Your task to perform on an android device: Play the new Justin Bieber video on YouTube Image 0: 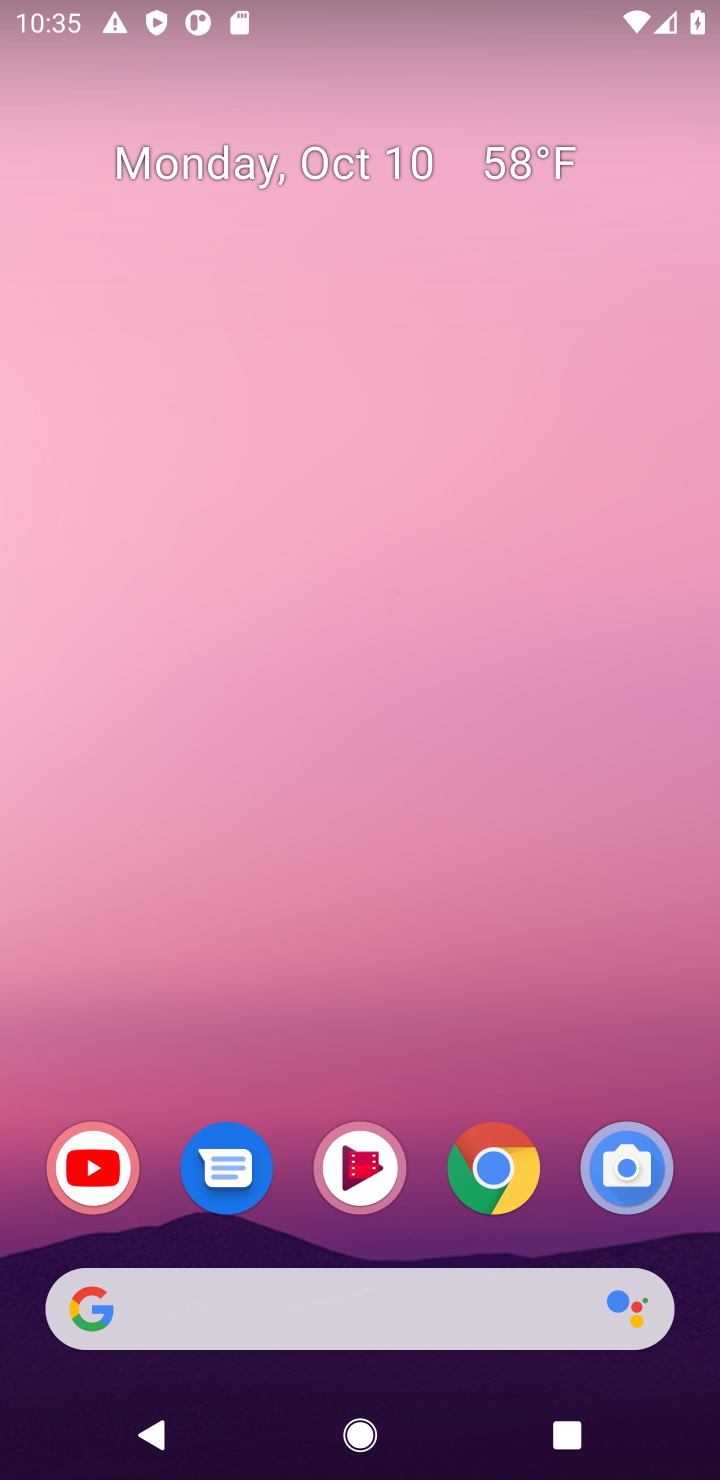
Step 0: click (109, 1163)
Your task to perform on an android device: Play the new Justin Bieber video on YouTube Image 1: 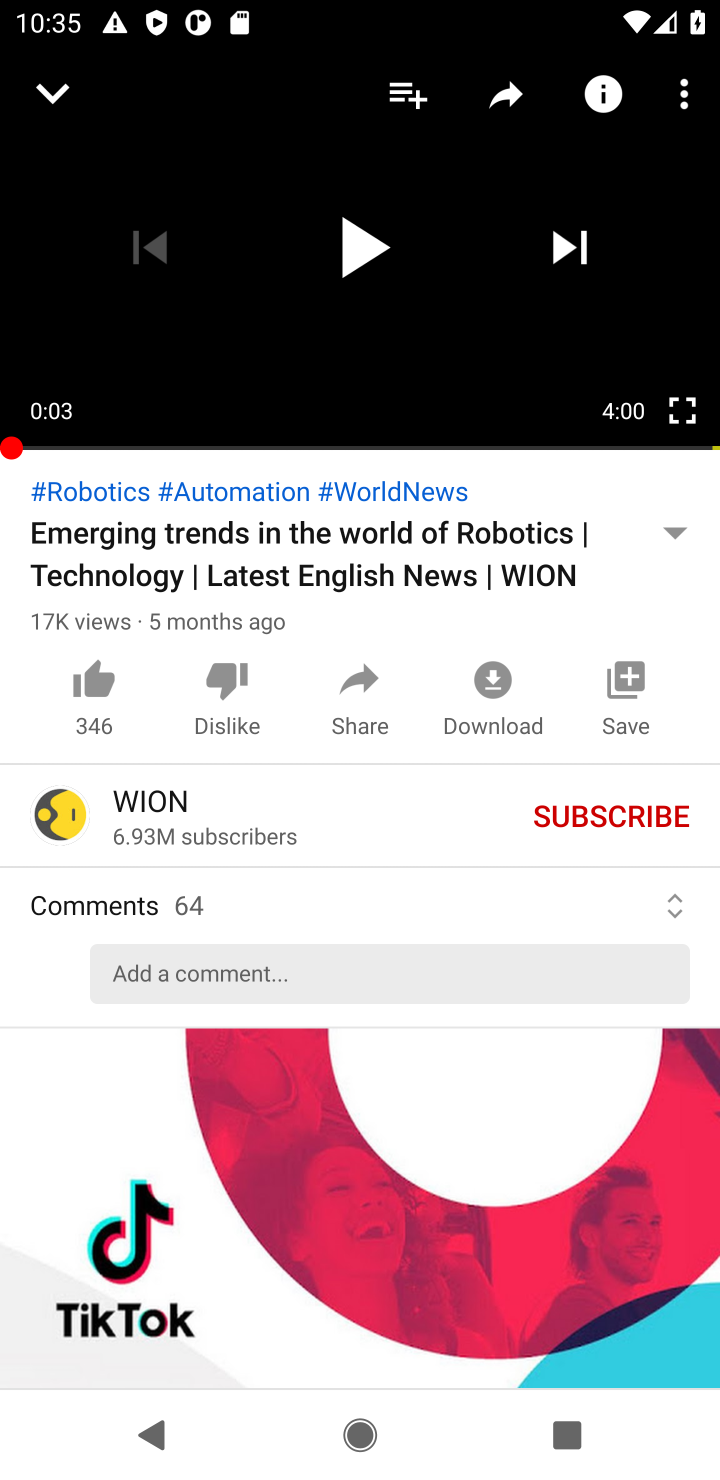
Step 1: drag from (430, 283) to (408, 1032)
Your task to perform on an android device: Play the new Justin Bieber video on YouTube Image 2: 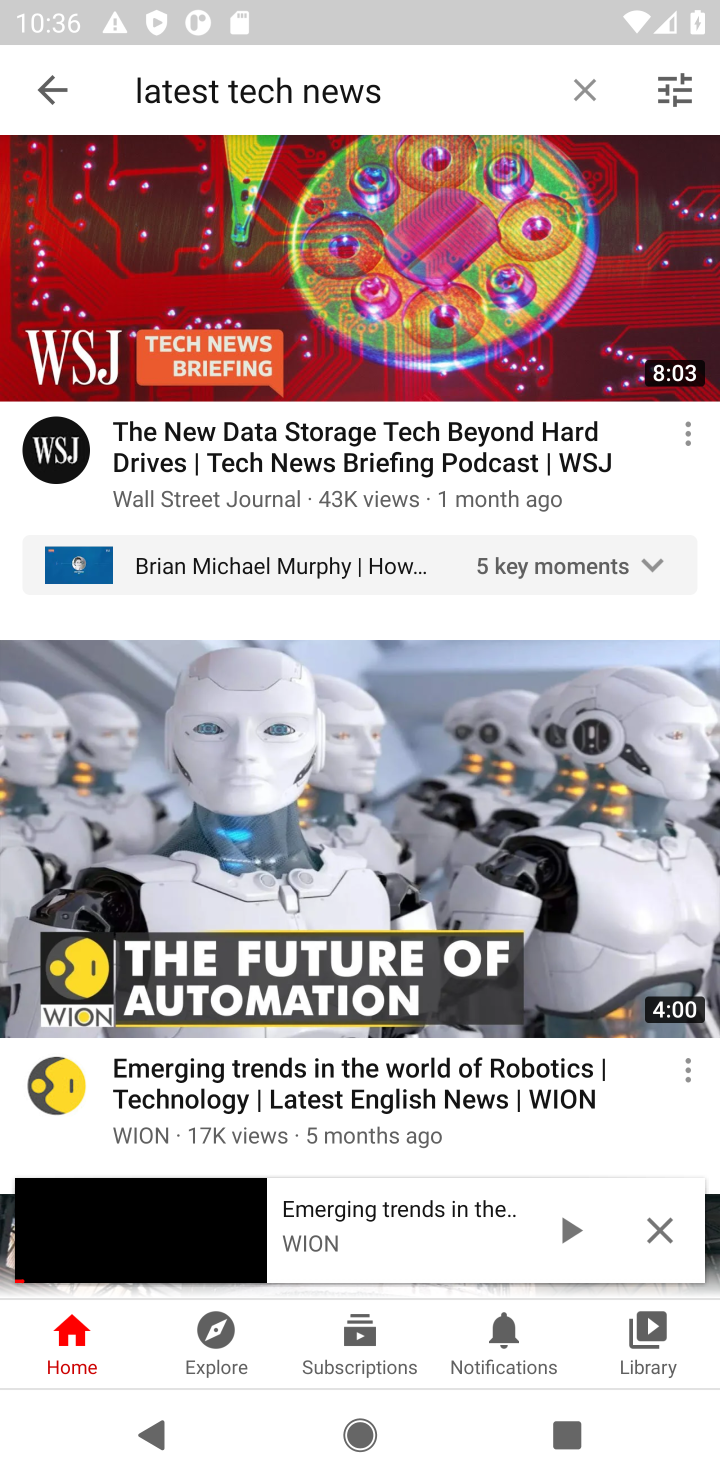
Step 2: click (646, 1227)
Your task to perform on an android device: Play the new Justin Bieber video on YouTube Image 3: 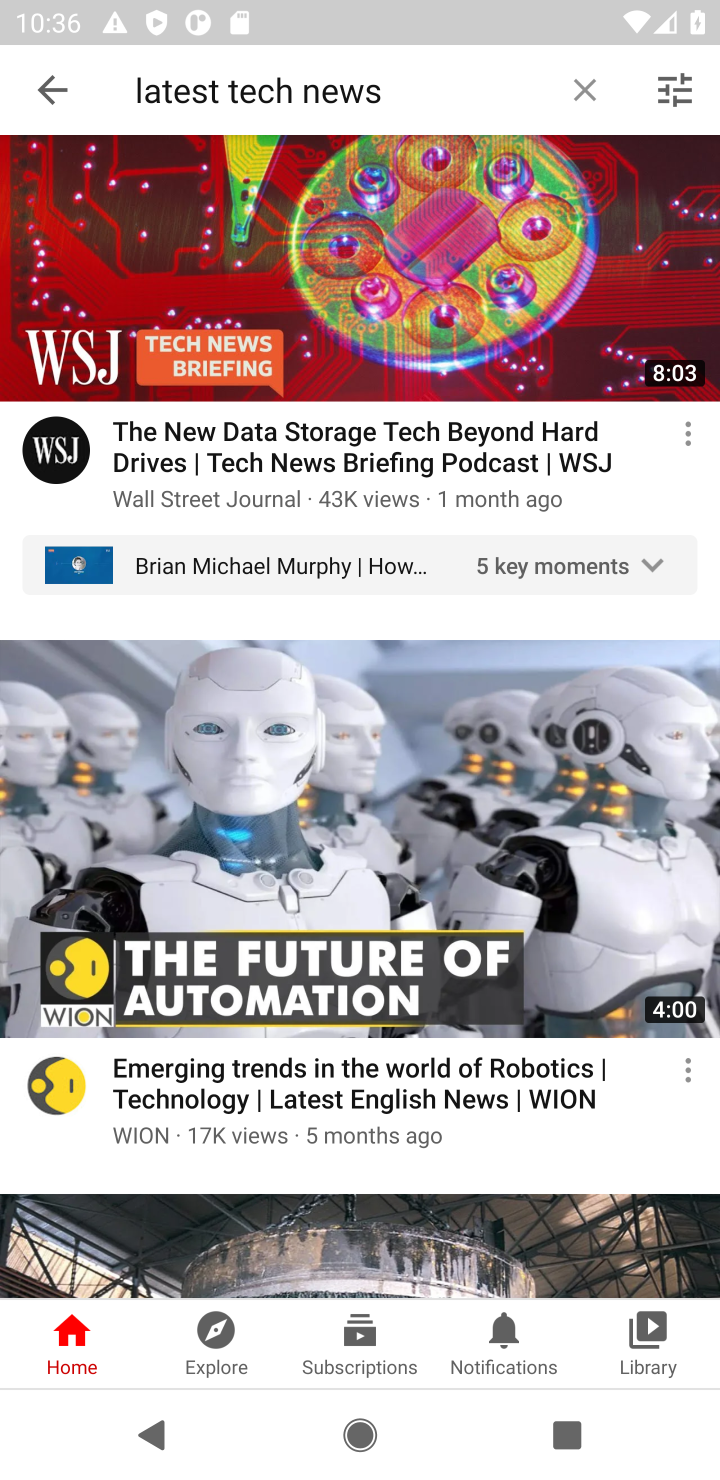
Step 3: click (574, 101)
Your task to perform on an android device: Play the new Justin Bieber video on YouTube Image 4: 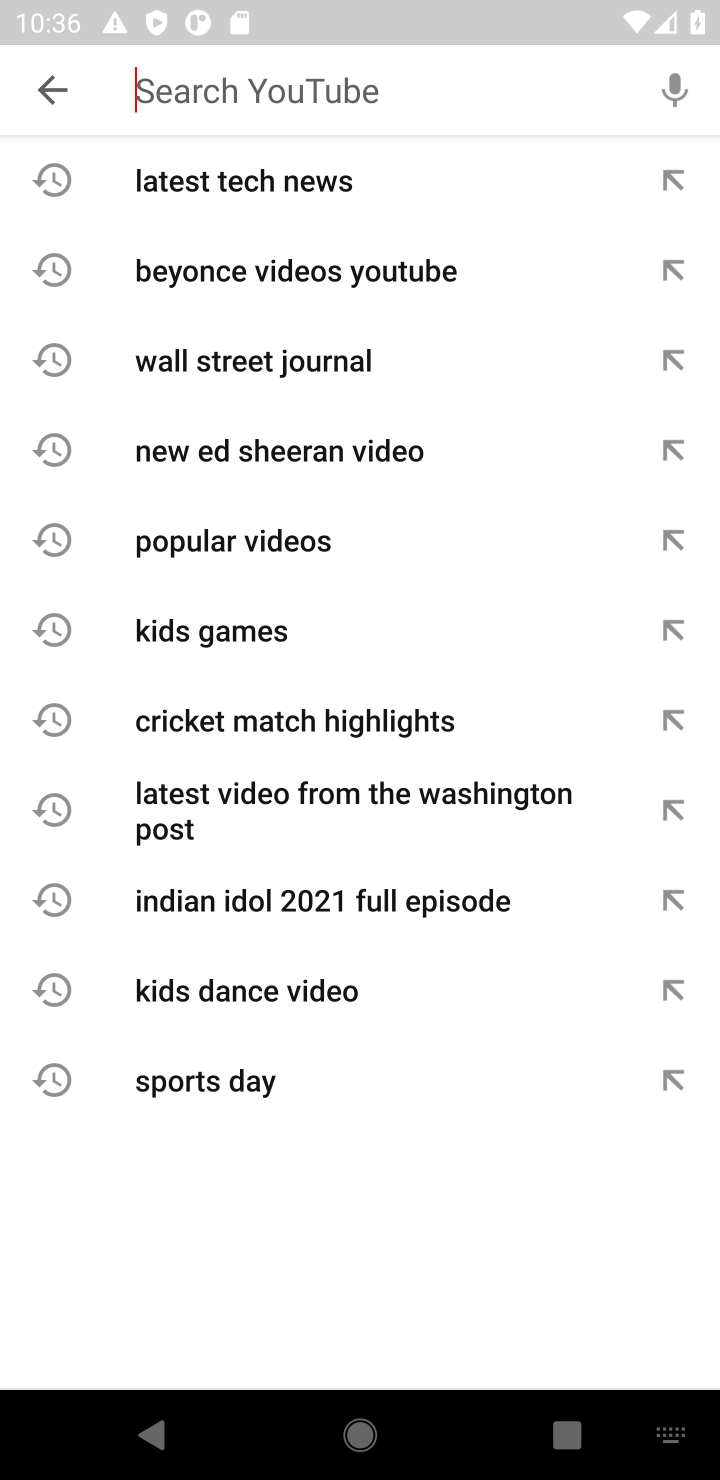
Step 4: type "Justin Bieber video"
Your task to perform on an android device: Play the new Justin Bieber video on YouTube Image 5: 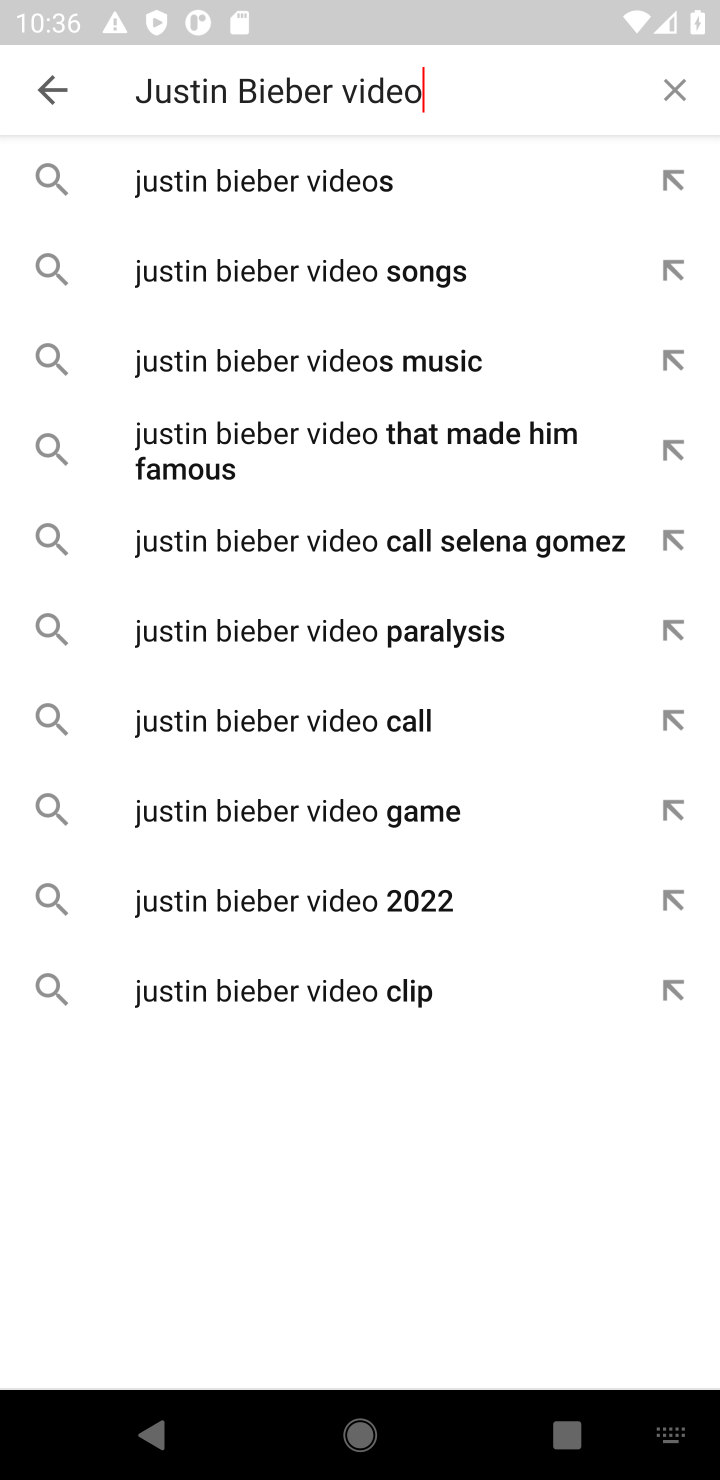
Step 5: click (322, 177)
Your task to perform on an android device: Play the new Justin Bieber video on YouTube Image 6: 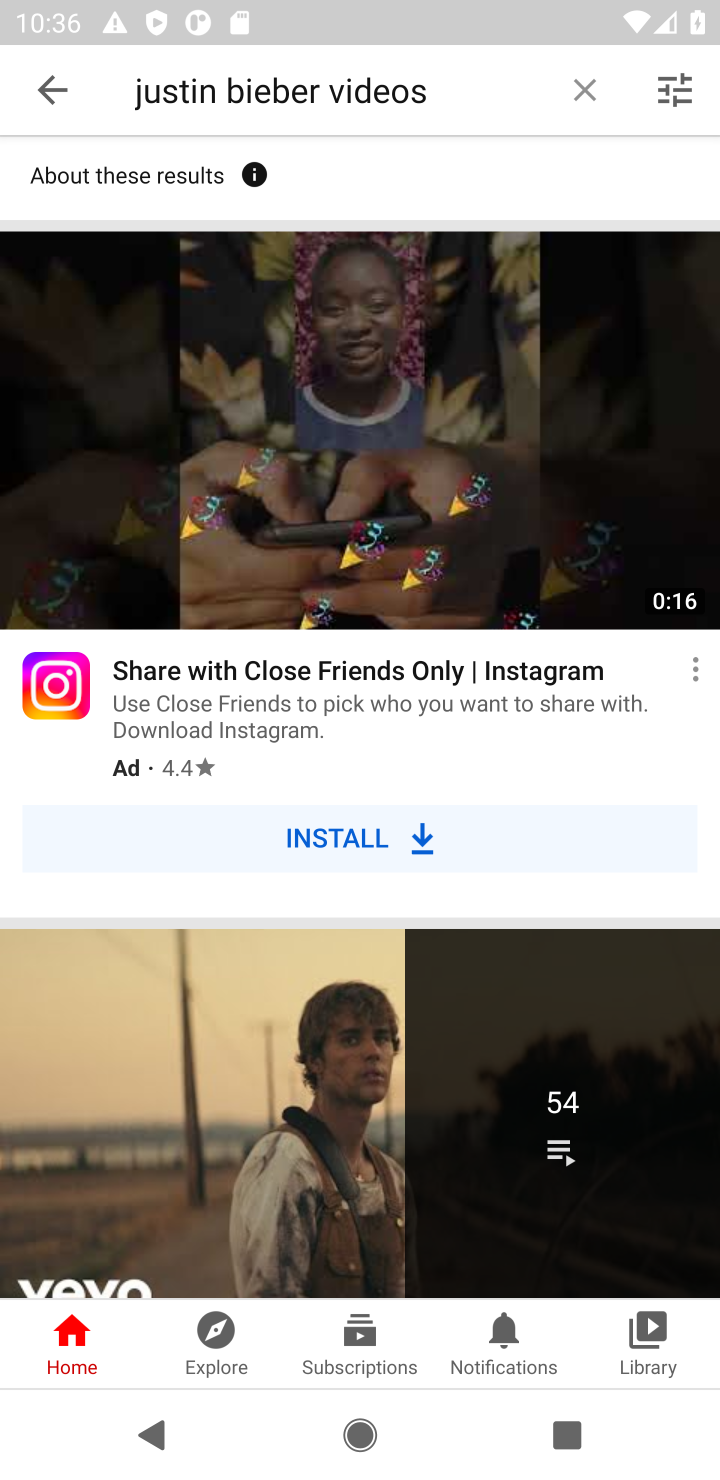
Step 6: drag from (399, 807) to (398, 281)
Your task to perform on an android device: Play the new Justin Bieber video on YouTube Image 7: 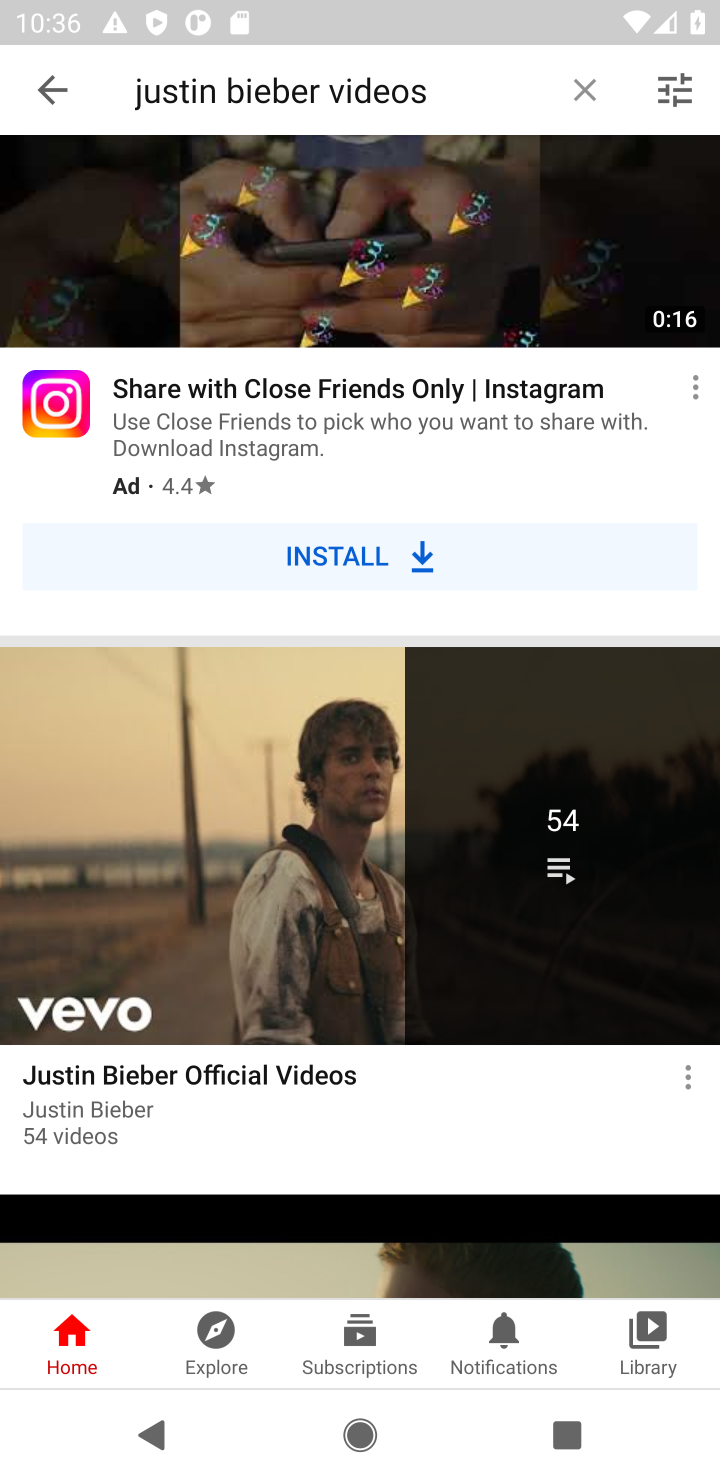
Step 7: drag from (384, 848) to (377, 459)
Your task to perform on an android device: Play the new Justin Bieber video on YouTube Image 8: 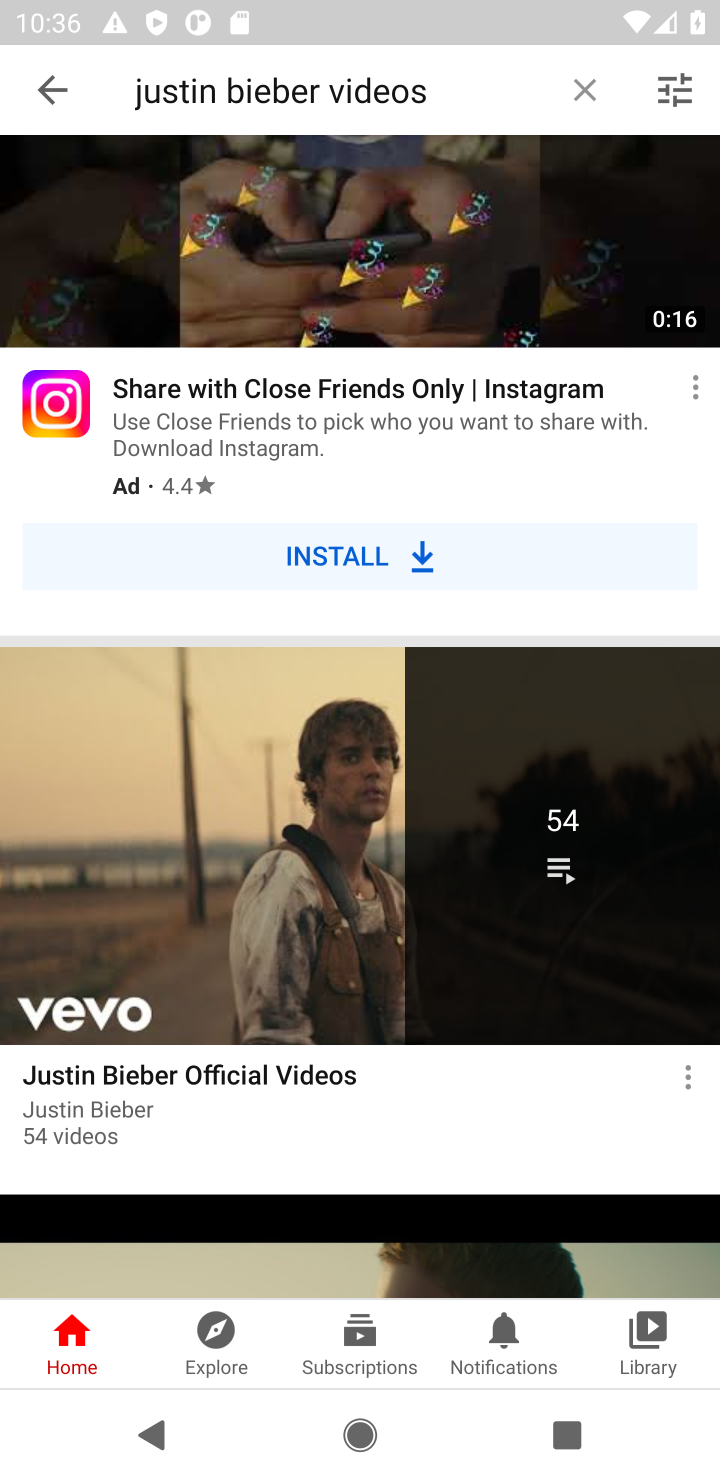
Step 8: drag from (442, 1002) to (356, 546)
Your task to perform on an android device: Play the new Justin Bieber video on YouTube Image 9: 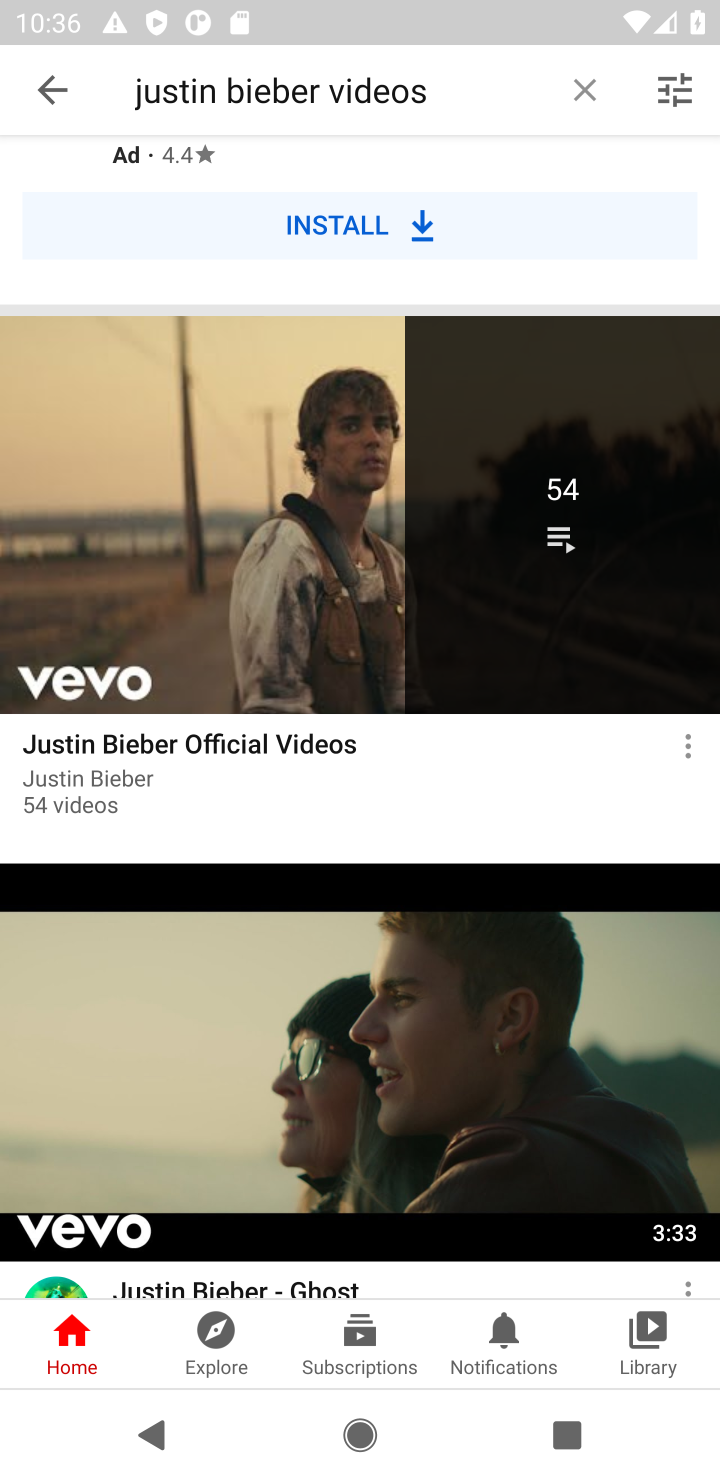
Step 9: click (331, 985)
Your task to perform on an android device: Play the new Justin Bieber video on YouTube Image 10: 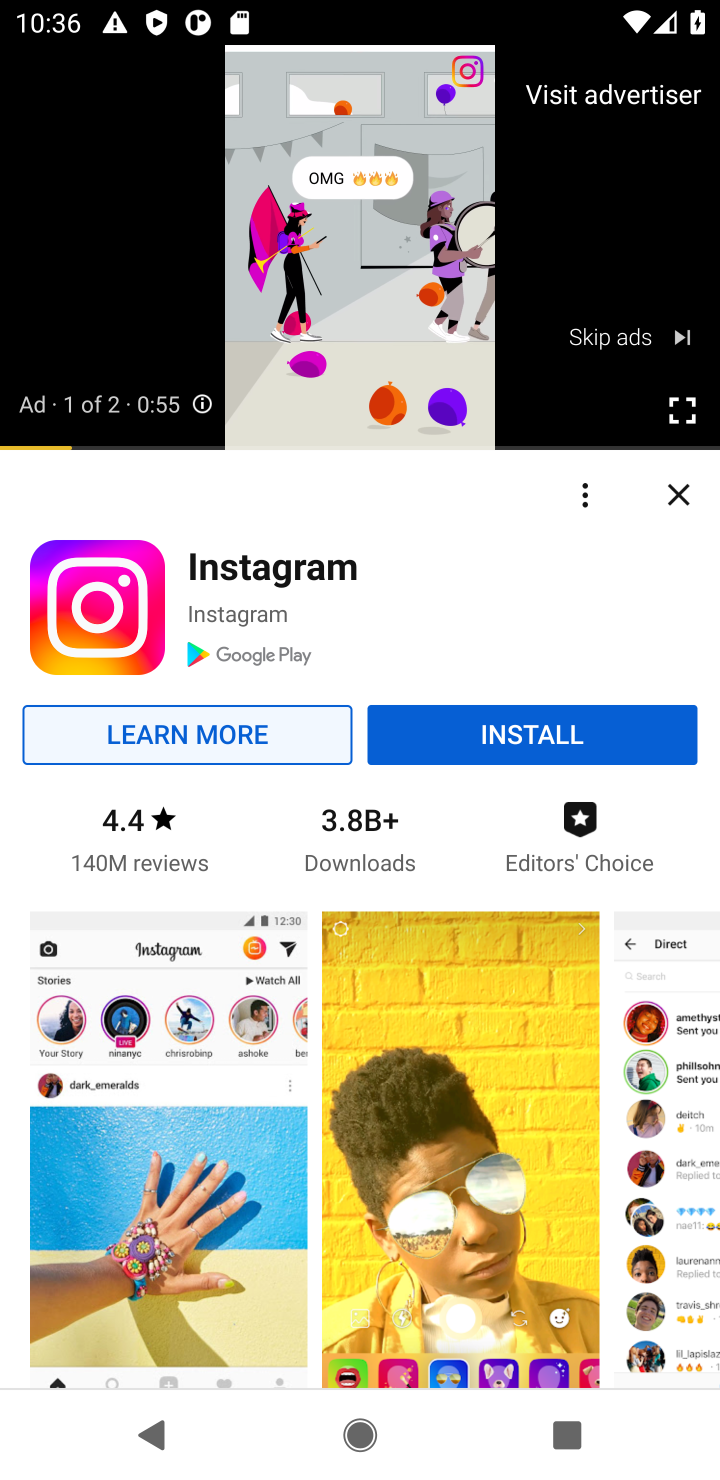
Step 10: click (629, 336)
Your task to perform on an android device: Play the new Justin Bieber video on YouTube Image 11: 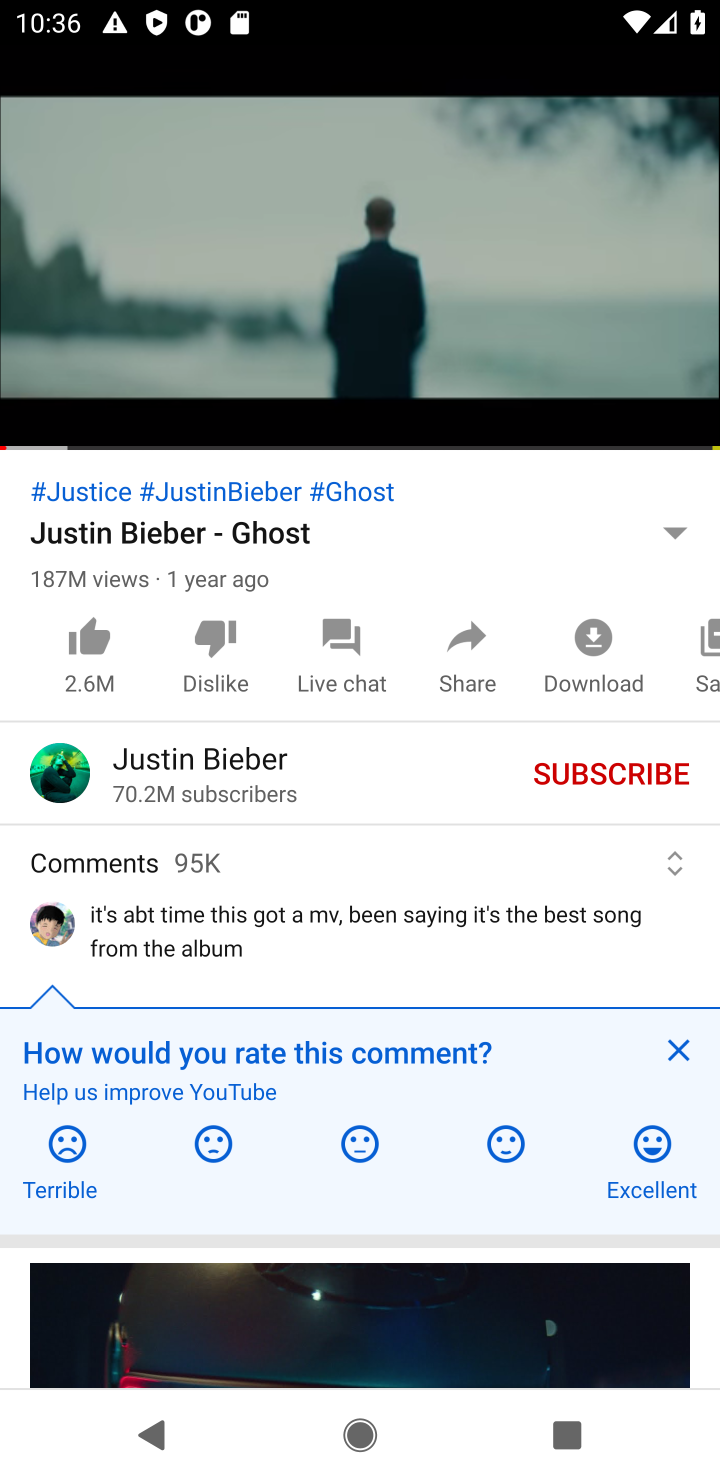
Step 11: click (395, 264)
Your task to perform on an android device: Play the new Justin Bieber video on YouTube Image 12: 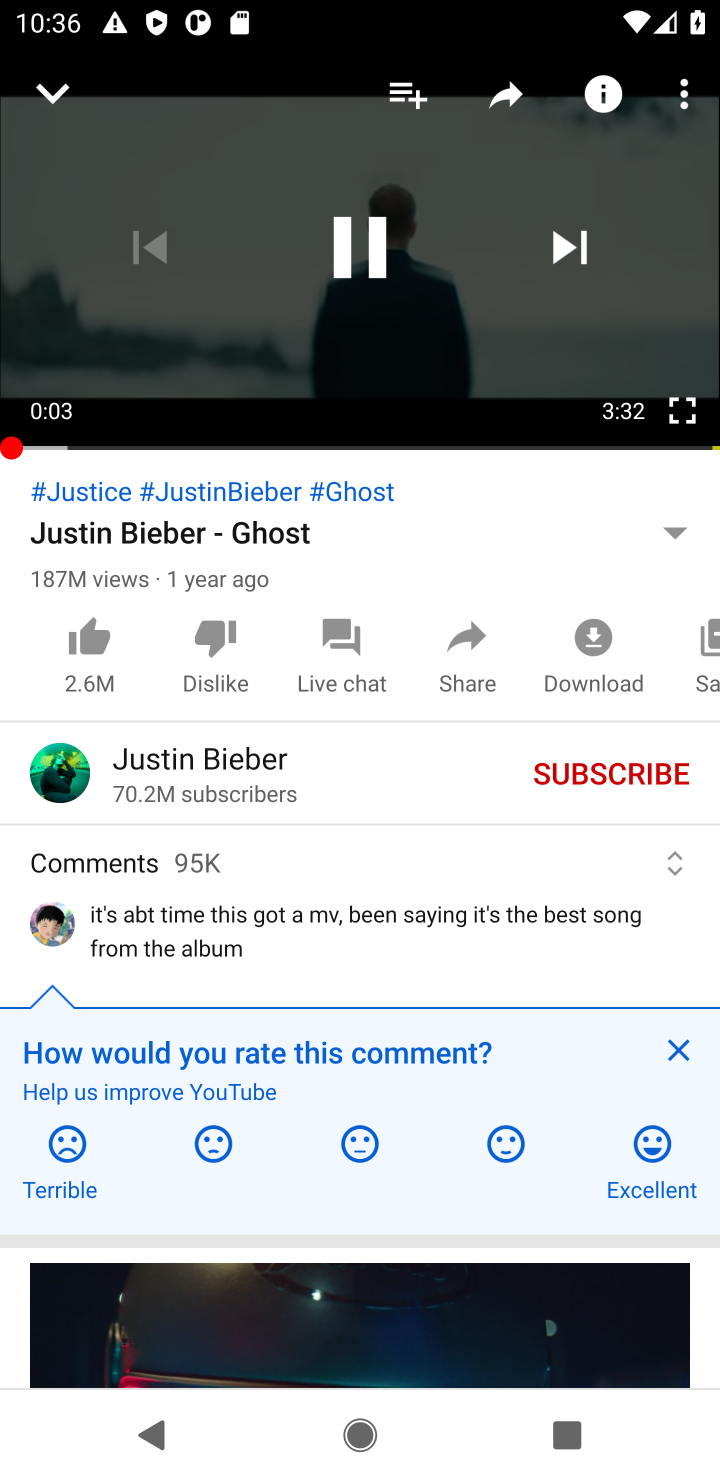
Step 12: click (376, 248)
Your task to perform on an android device: Play the new Justin Bieber video on YouTube Image 13: 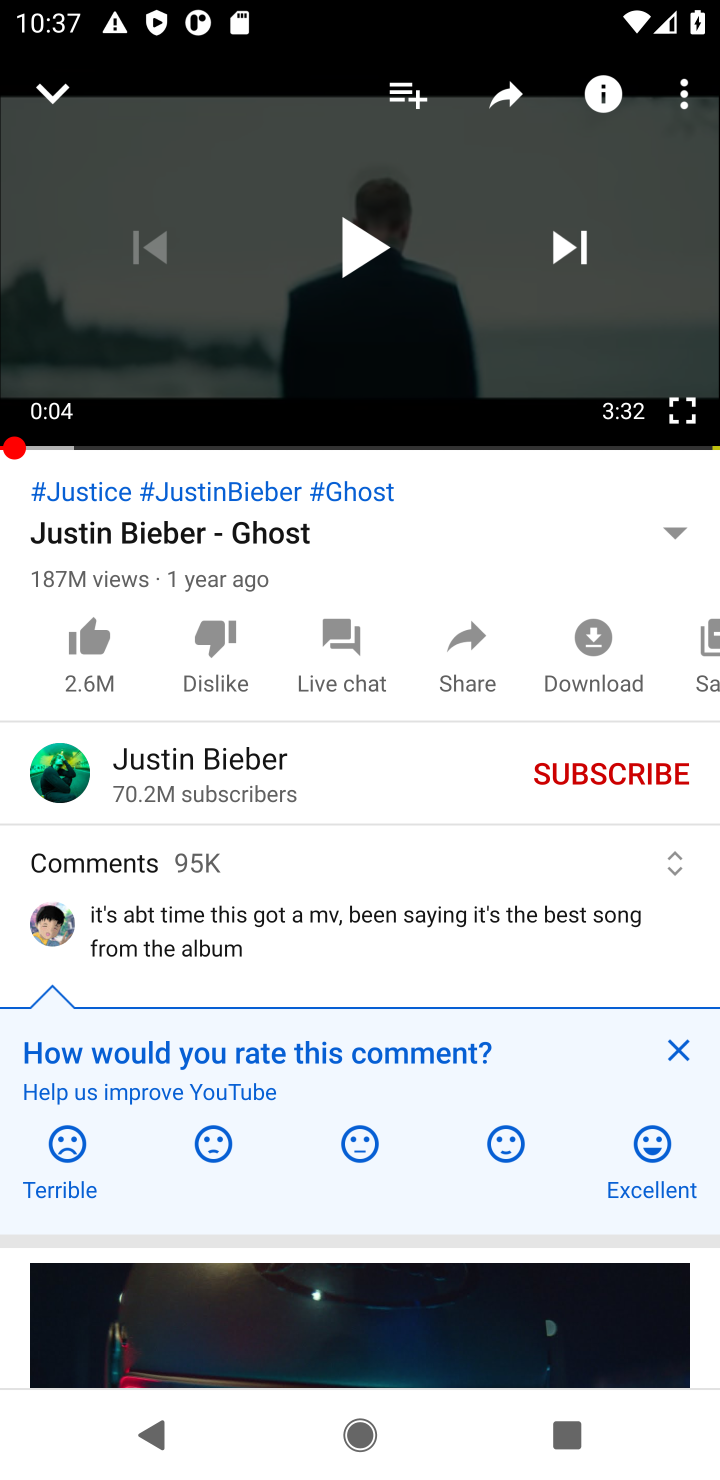
Step 13: task complete